Your task to perform on an android device: Go to CNN.com Image 0: 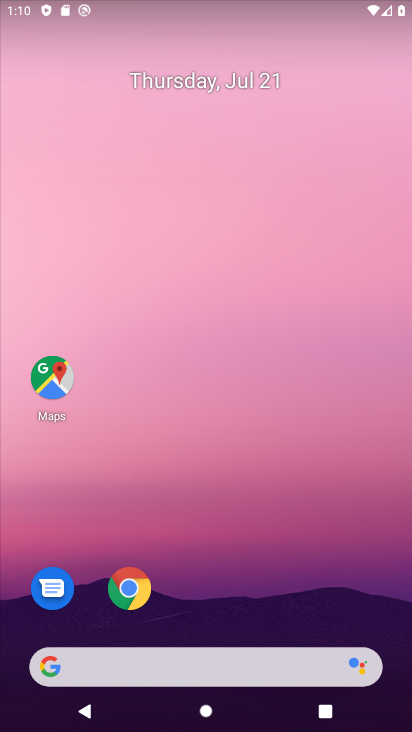
Step 0: click (145, 602)
Your task to perform on an android device: Go to CNN.com Image 1: 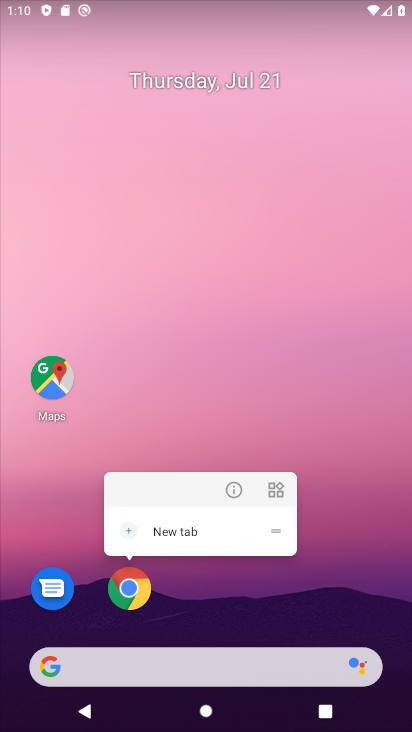
Step 1: click (136, 597)
Your task to perform on an android device: Go to CNN.com Image 2: 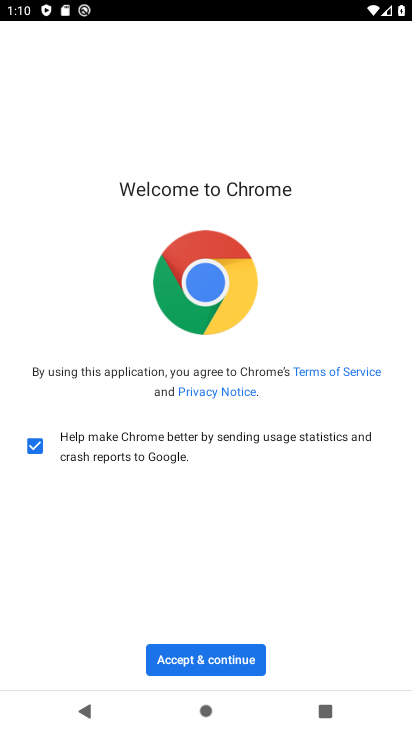
Step 2: click (209, 652)
Your task to perform on an android device: Go to CNN.com Image 3: 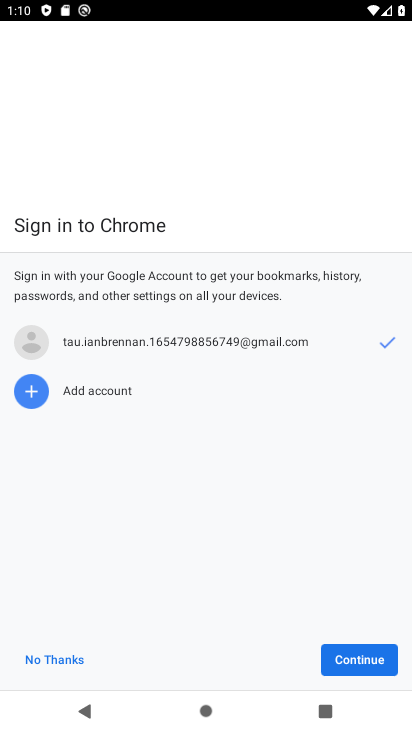
Step 3: click (389, 655)
Your task to perform on an android device: Go to CNN.com Image 4: 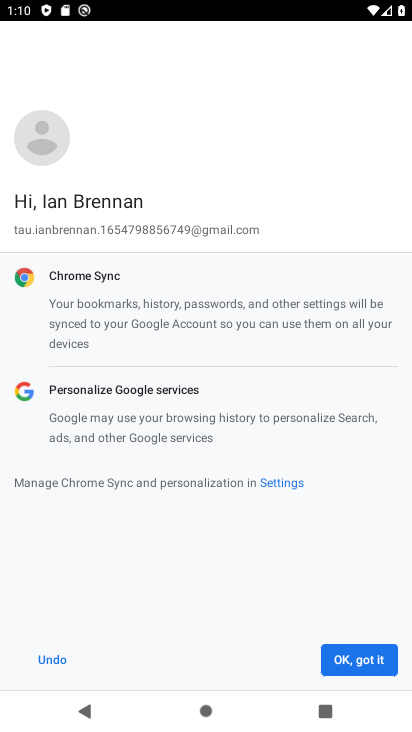
Step 4: click (365, 664)
Your task to perform on an android device: Go to CNN.com Image 5: 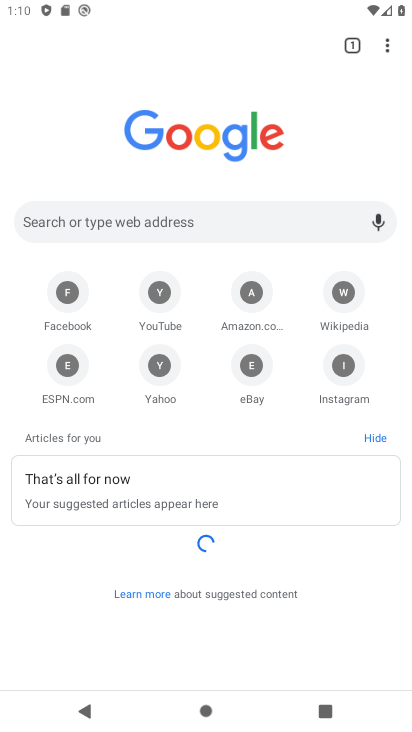
Step 5: click (226, 226)
Your task to perform on an android device: Go to CNN.com Image 6: 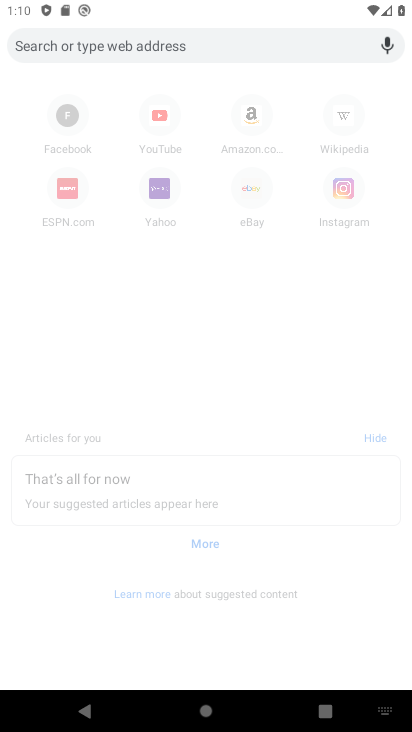
Step 6: type "cnn"
Your task to perform on an android device: Go to CNN.com Image 7: 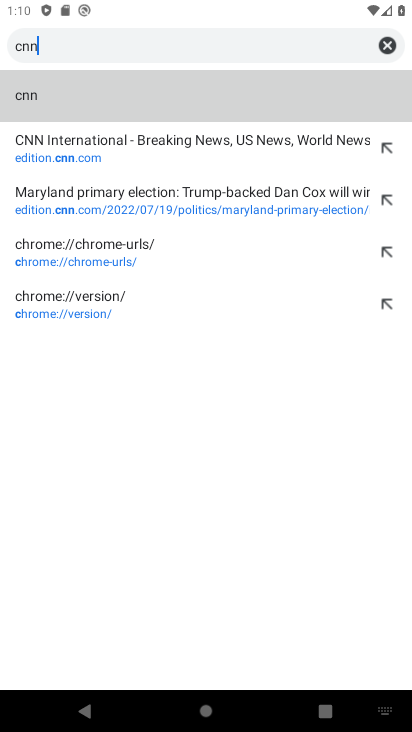
Step 7: type ""
Your task to perform on an android device: Go to CNN.com Image 8: 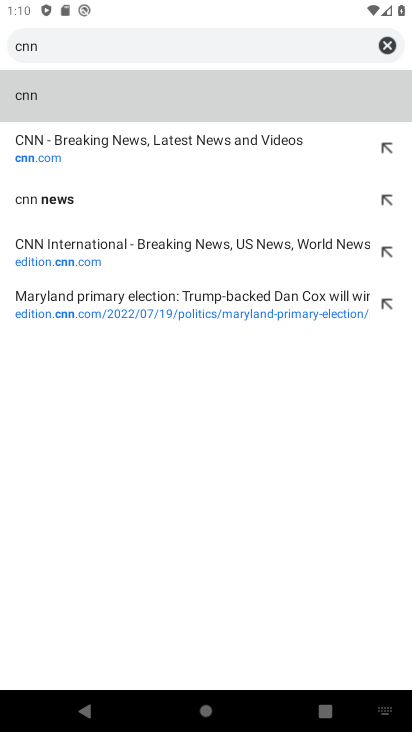
Step 8: click (49, 147)
Your task to perform on an android device: Go to CNN.com Image 9: 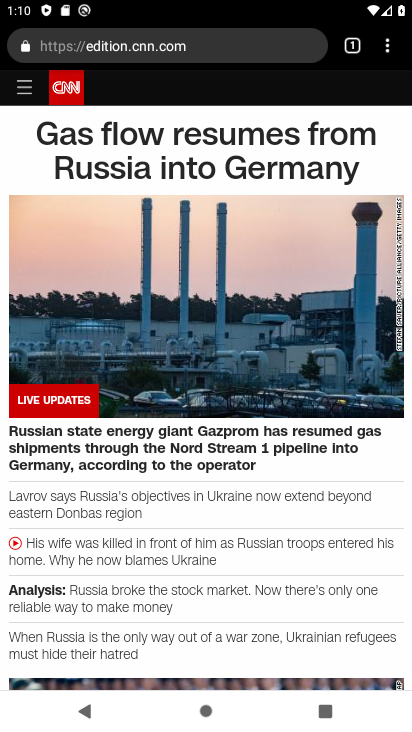
Step 9: task complete